Your task to perform on an android device: toggle sleep mode Image 0: 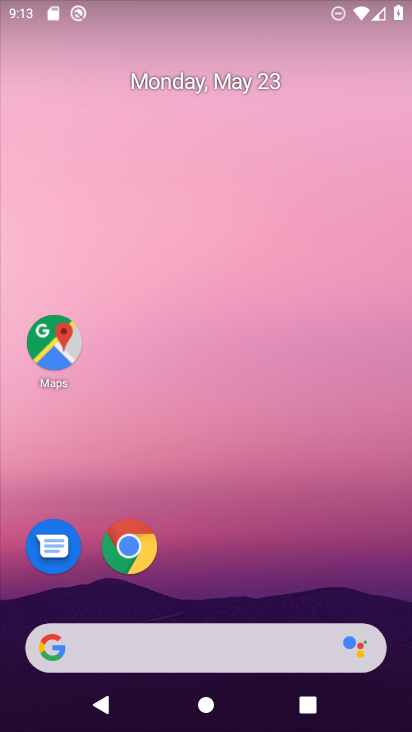
Step 0: drag from (201, 543) to (194, 138)
Your task to perform on an android device: toggle sleep mode Image 1: 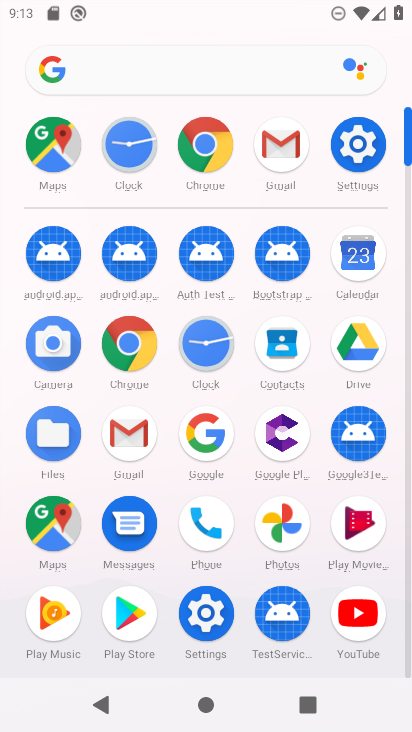
Step 1: click (357, 126)
Your task to perform on an android device: toggle sleep mode Image 2: 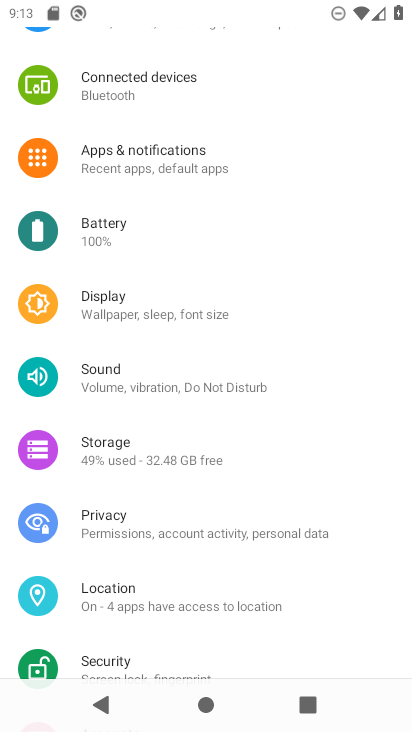
Step 2: drag from (152, 524) to (166, 448)
Your task to perform on an android device: toggle sleep mode Image 3: 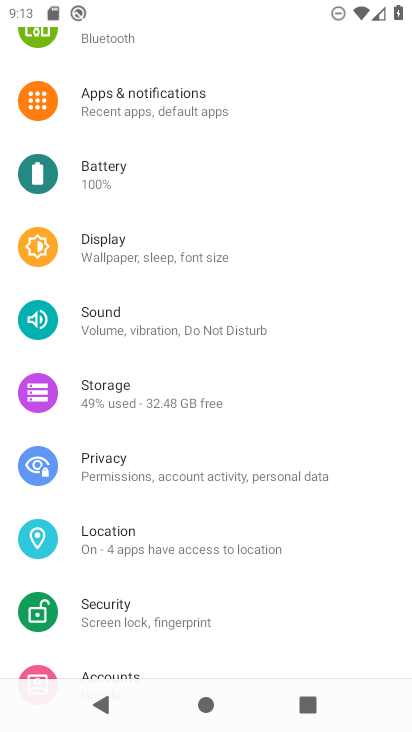
Step 3: click (155, 245)
Your task to perform on an android device: toggle sleep mode Image 4: 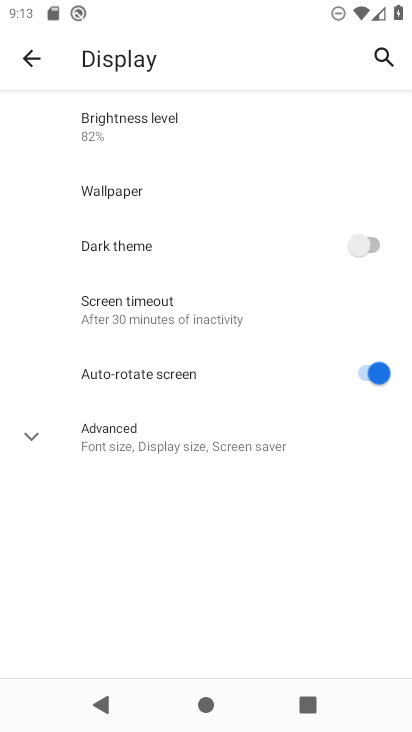
Step 4: click (302, 317)
Your task to perform on an android device: toggle sleep mode Image 5: 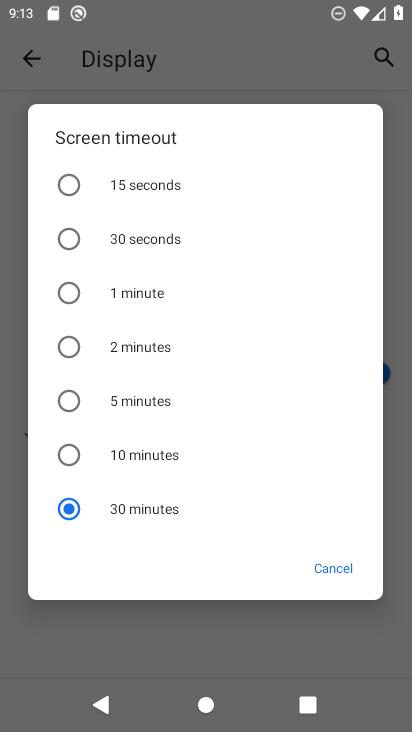
Step 5: click (121, 448)
Your task to perform on an android device: toggle sleep mode Image 6: 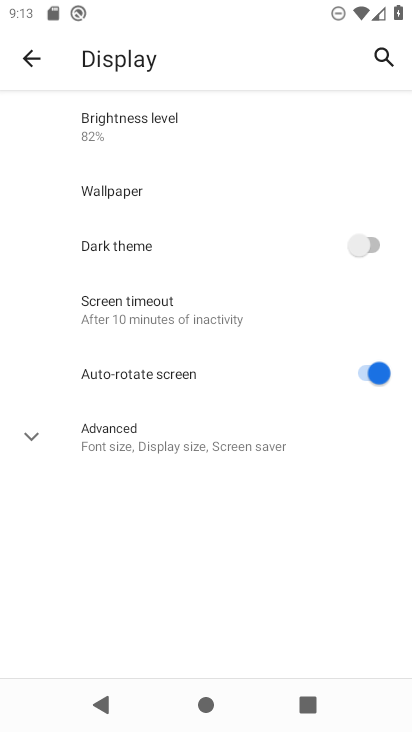
Step 6: task complete